Your task to perform on an android device: Clear all items from cart on newegg.com. Search for "lg ultragear" on newegg.com, select the first entry, and add it to the cart. Image 0: 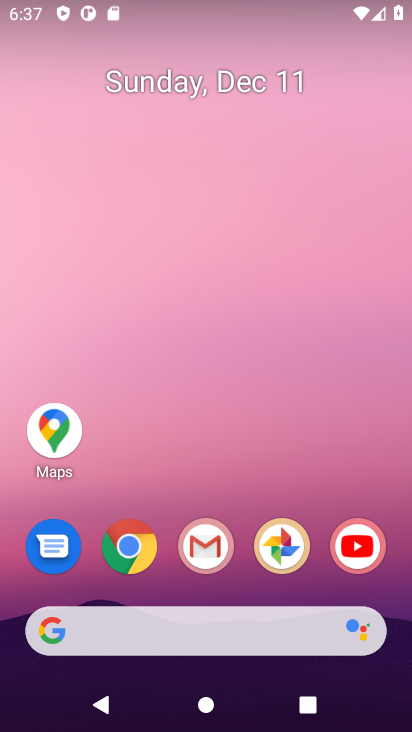
Step 0: click (131, 553)
Your task to perform on an android device: Clear all items from cart on newegg.com. Search for "lg ultragear" on newegg.com, select the first entry, and add it to the cart. Image 1: 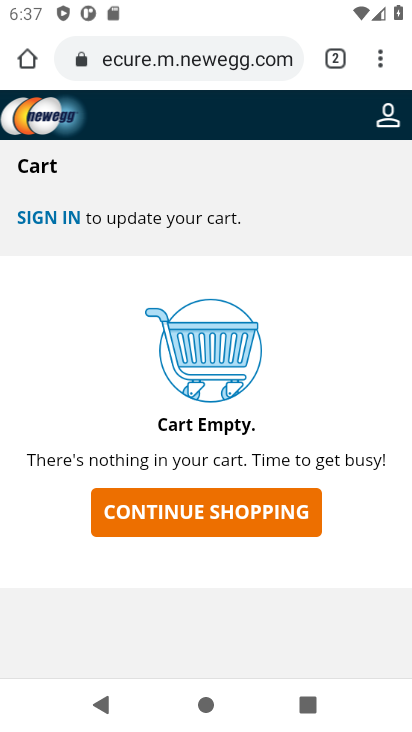
Step 1: click (173, 521)
Your task to perform on an android device: Clear all items from cart on newegg.com. Search for "lg ultragear" on newegg.com, select the first entry, and add it to the cart. Image 2: 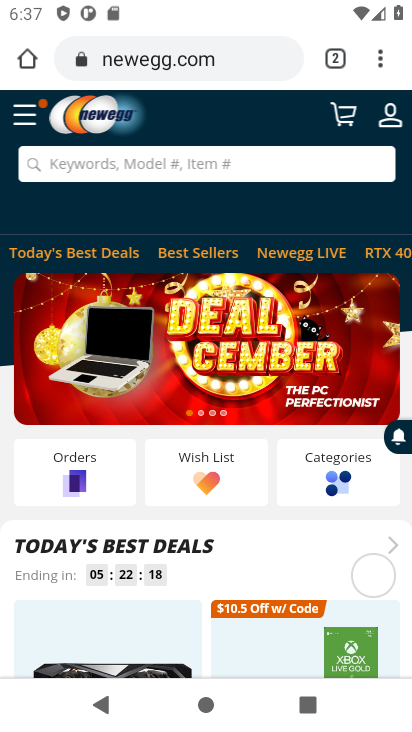
Step 2: click (138, 181)
Your task to perform on an android device: Clear all items from cart on newegg.com. Search for "lg ultragear" on newegg.com, select the first entry, and add it to the cart. Image 3: 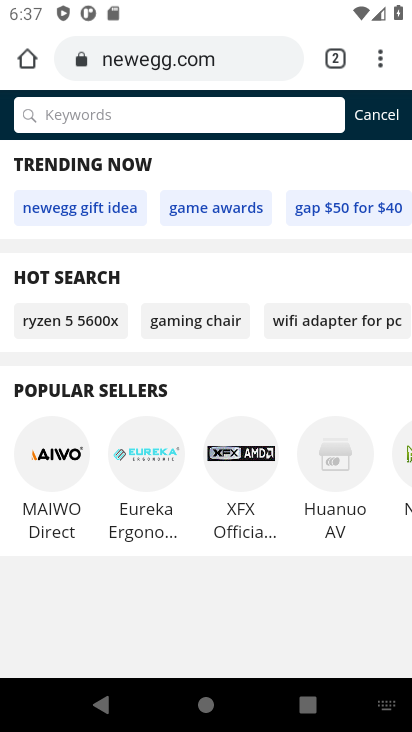
Step 3: type "lg ultragea"
Your task to perform on an android device: Clear all items from cart on newegg.com. Search for "lg ultragear" on newegg.com, select the first entry, and add it to the cart. Image 4: 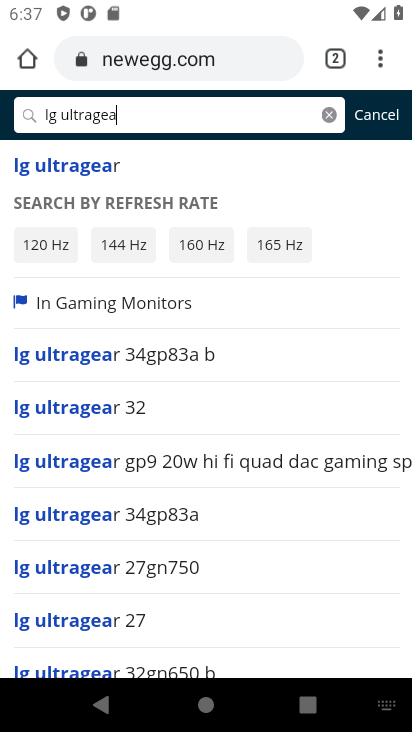
Step 4: click (89, 168)
Your task to perform on an android device: Clear all items from cart on newegg.com. Search for "lg ultragear" on newegg.com, select the first entry, and add it to the cart. Image 5: 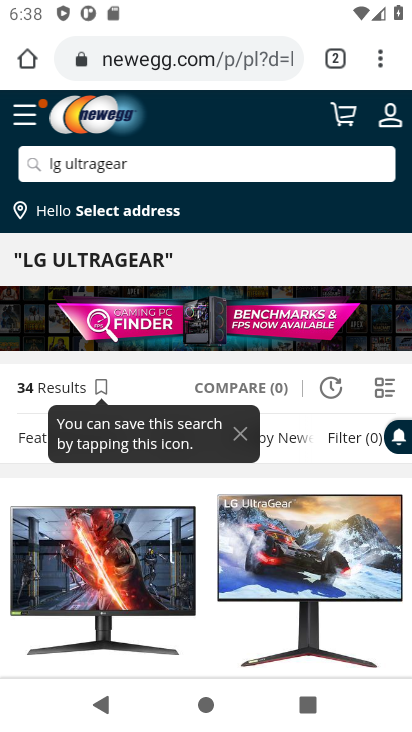
Step 5: drag from (204, 603) to (184, 347)
Your task to perform on an android device: Clear all items from cart on newegg.com. Search for "lg ultragear" on newegg.com, select the first entry, and add it to the cart. Image 6: 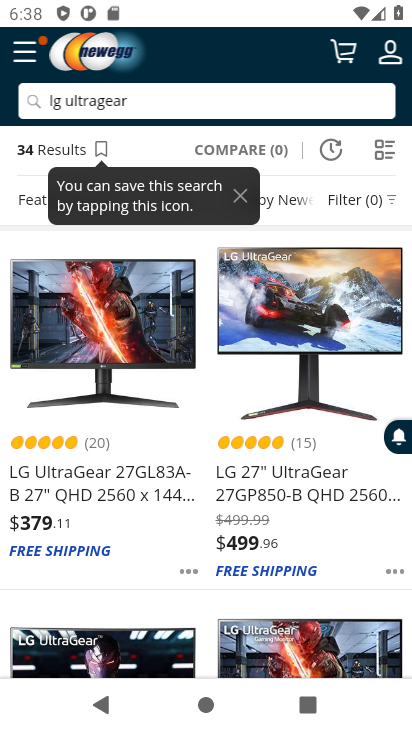
Step 6: click (54, 496)
Your task to perform on an android device: Clear all items from cart on newegg.com. Search for "lg ultragear" on newegg.com, select the first entry, and add it to the cart. Image 7: 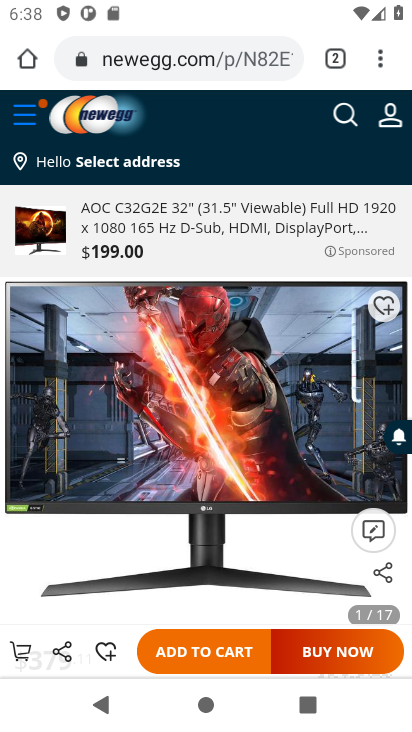
Step 7: click (197, 654)
Your task to perform on an android device: Clear all items from cart on newegg.com. Search for "lg ultragear" on newegg.com, select the first entry, and add it to the cart. Image 8: 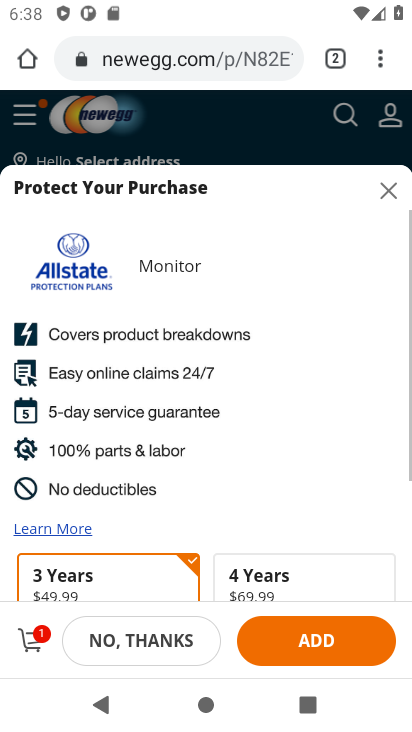
Step 8: task complete